Your task to perform on an android device: check data usage Image 0: 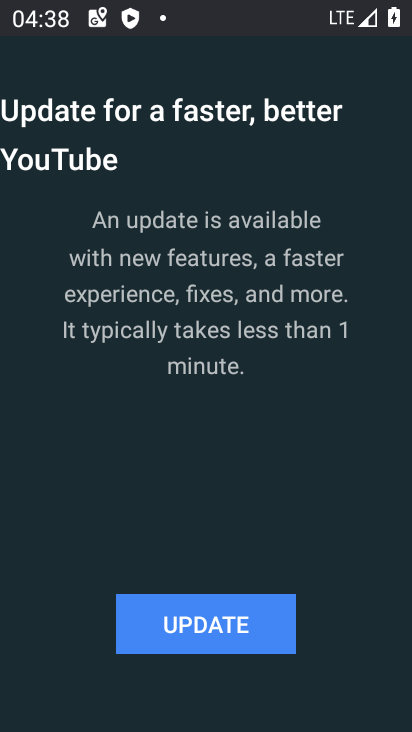
Step 0: press home button
Your task to perform on an android device: check data usage Image 1: 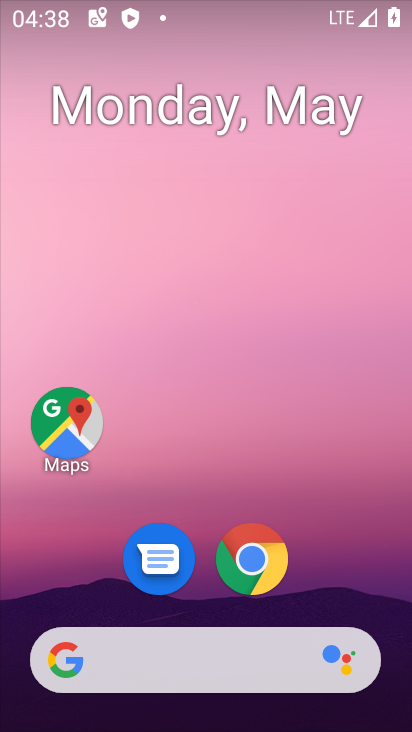
Step 1: drag from (258, 643) to (326, 117)
Your task to perform on an android device: check data usage Image 2: 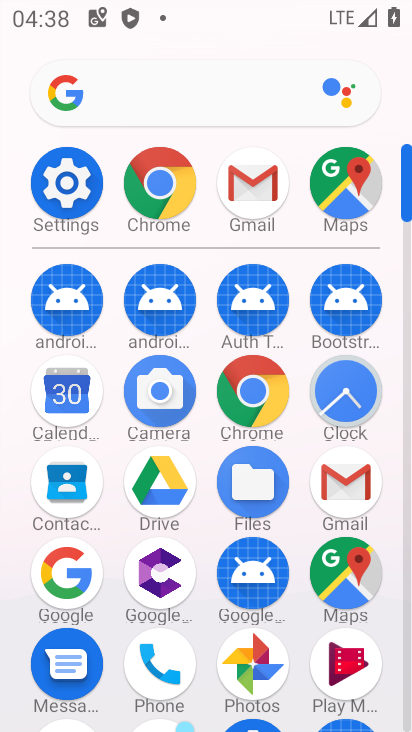
Step 2: click (74, 180)
Your task to perform on an android device: check data usage Image 3: 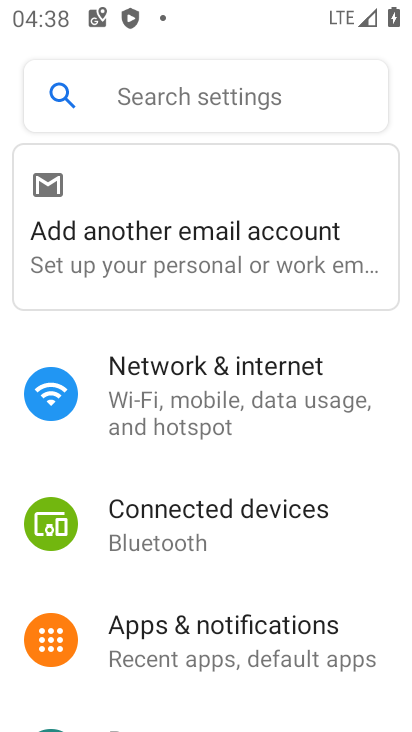
Step 3: drag from (257, 619) to (275, 452)
Your task to perform on an android device: check data usage Image 4: 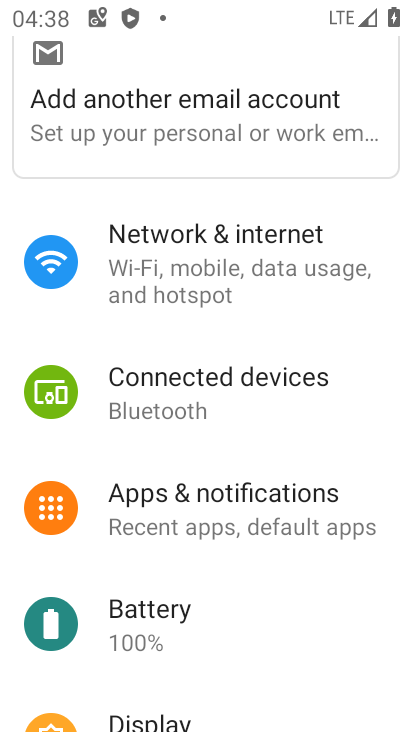
Step 4: click (248, 257)
Your task to perform on an android device: check data usage Image 5: 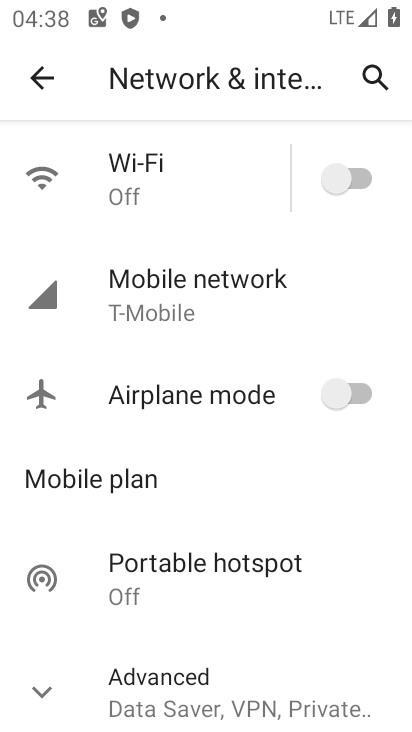
Step 5: task complete